Your task to perform on an android device: empty trash in google photos Image 0: 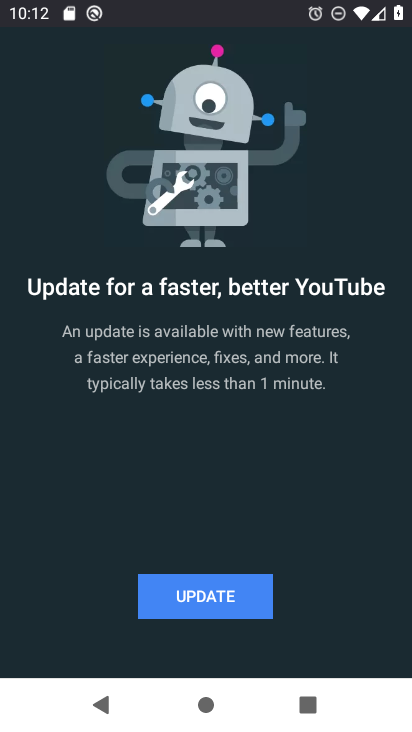
Step 0: press home button
Your task to perform on an android device: empty trash in google photos Image 1: 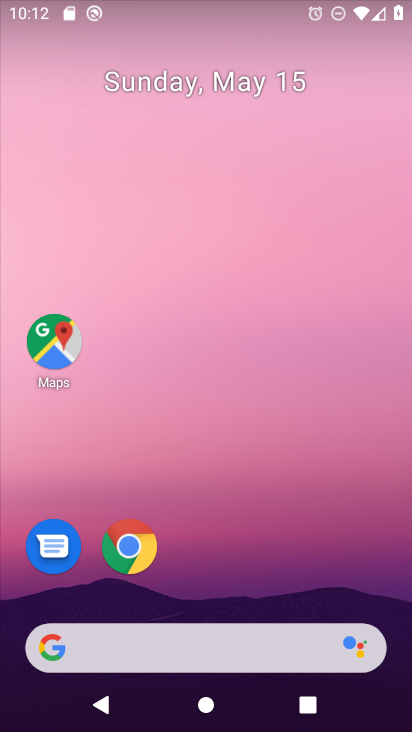
Step 1: drag from (262, 578) to (298, 147)
Your task to perform on an android device: empty trash in google photos Image 2: 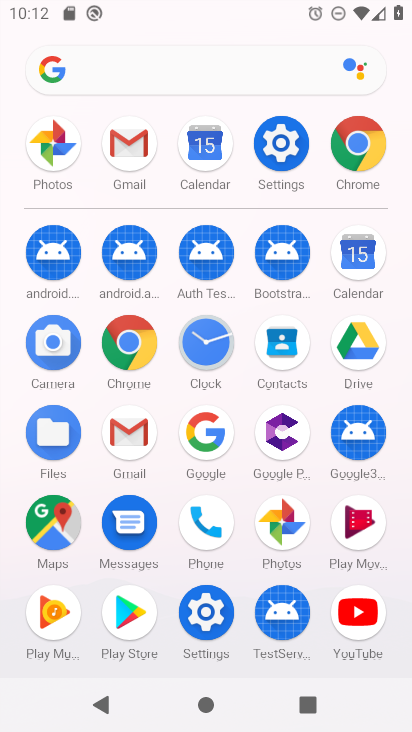
Step 2: click (48, 143)
Your task to perform on an android device: empty trash in google photos Image 3: 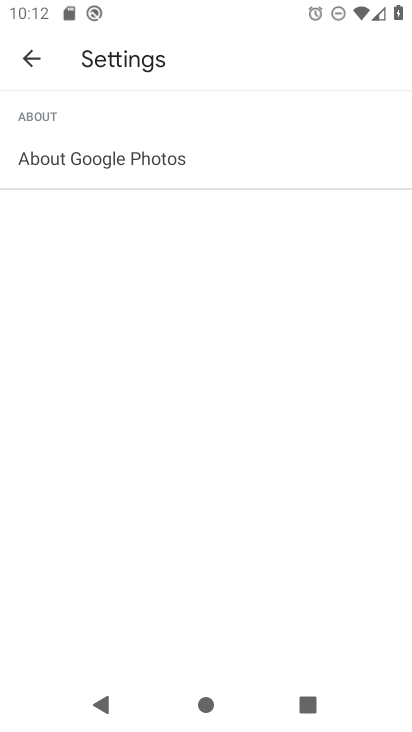
Step 3: click (43, 60)
Your task to perform on an android device: empty trash in google photos Image 4: 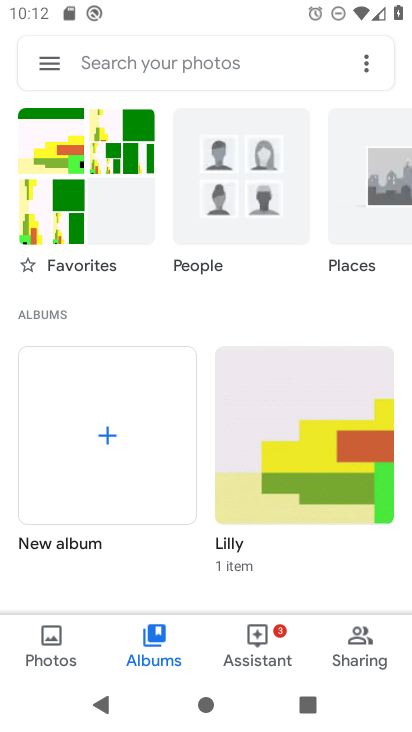
Step 4: click (48, 649)
Your task to perform on an android device: empty trash in google photos Image 5: 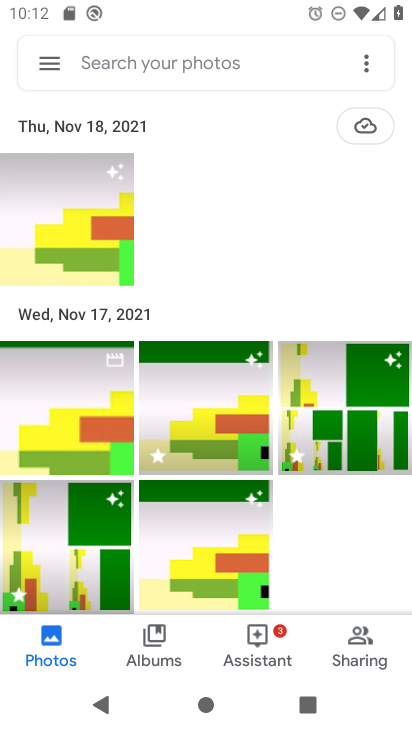
Step 5: click (56, 61)
Your task to perform on an android device: empty trash in google photos Image 6: 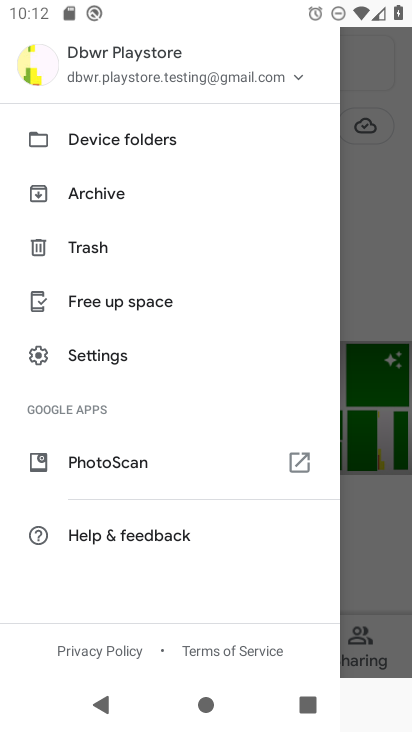
Step 6: click (118, 262)
Your task to perform on an android device: empty trash in google photos Image 7: 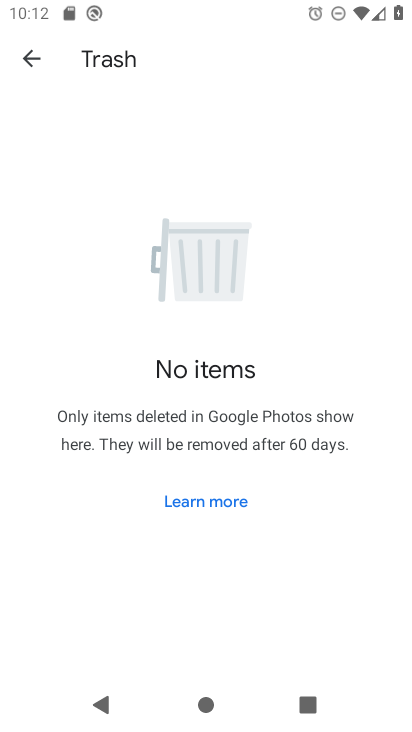
Step 7: task complete